Your task to perform on an android device: open chrome and create a bookmark for the current page Image 0: 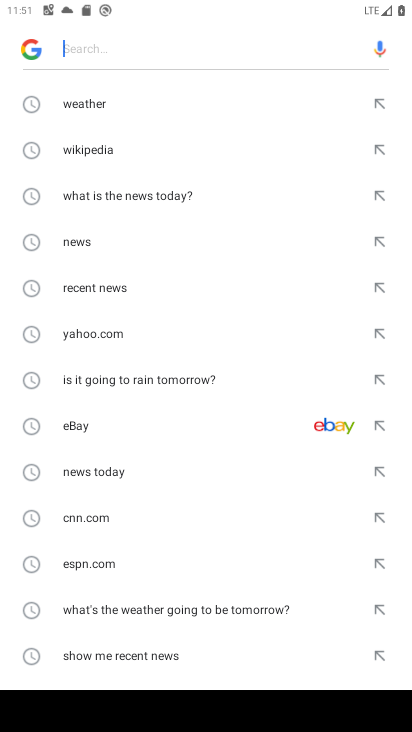
Step 0: press home button
Your task to perform on an android device: open chrome and create a bookmark for the current page Image 1: 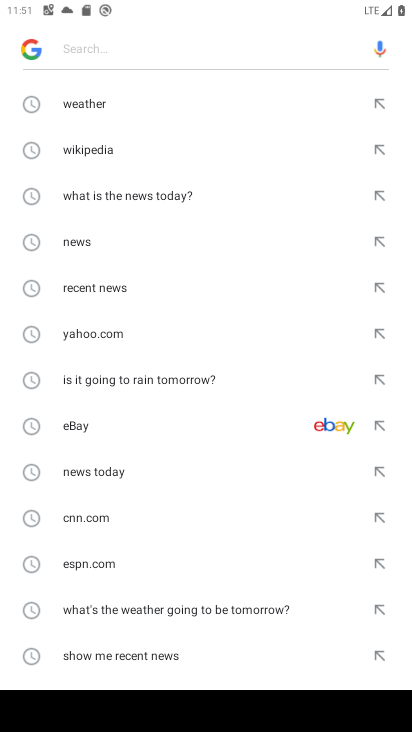
Step 1: press home button
Your task to perform on an android device: open chrome and create a bookmark for the current page Image 2: 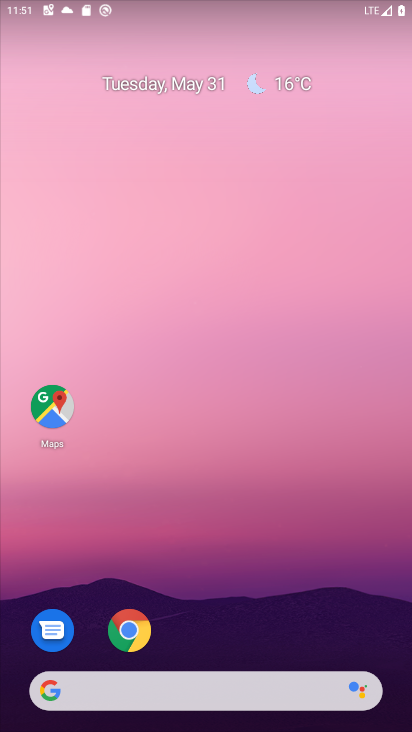
Step 2: click (129, 630)
Your task to perform on an android device: open chrome and create a bookmark for the current page Image 3: 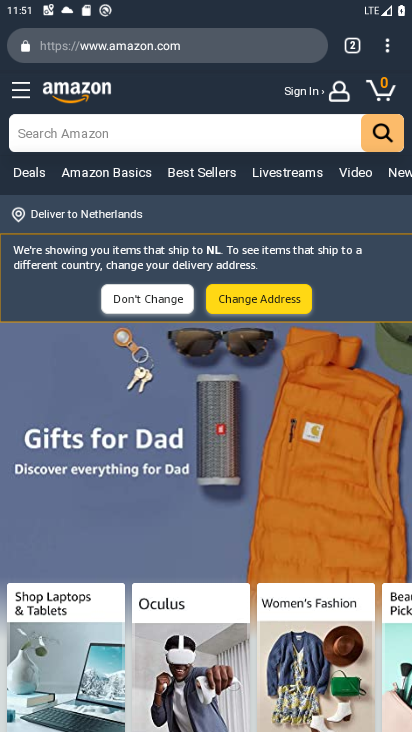
Step 3: task complete